Your task to perform on an android device: turn off priority inbox in the gmail app Image 0: 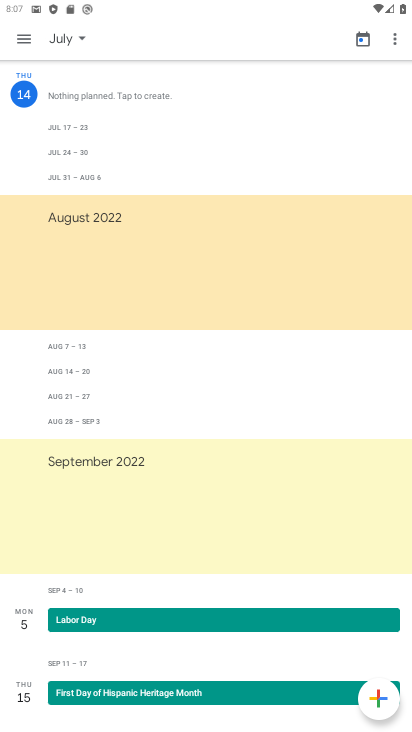
Step 0: press home button
Your task to perform on an android device: turn off priority inbox in the gmail app Image 1: 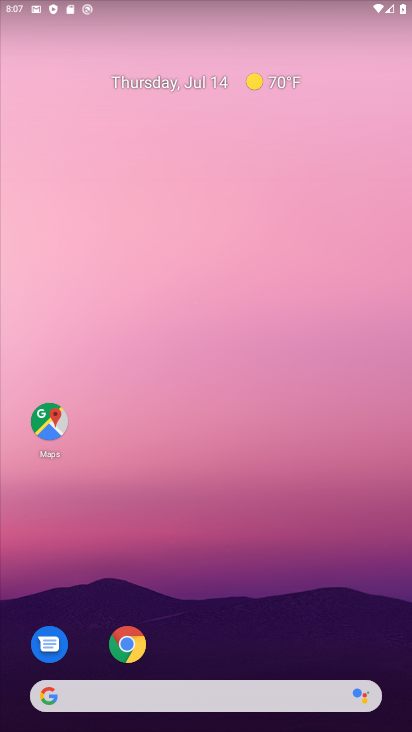
Step 1: drag from (276, 667) to (286, 46)
Your task to perform on an android device: turn off priority inbox in the gmail app Image 2: 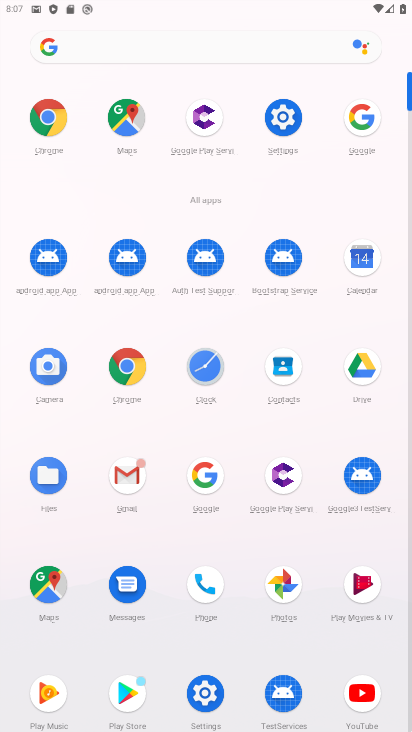
Step 2: click (137, 465)
Your task to perform on an android device: turn off priority inbox in the gmail app Image 3: 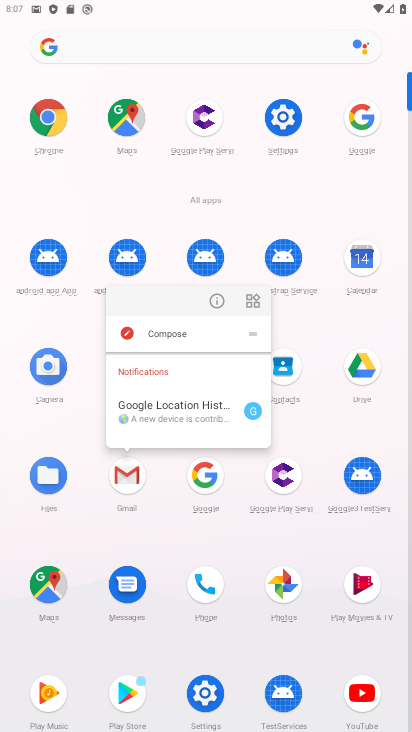
Step 3: click (106, 472)
Your task to perform on an android device: turn off priority inbox in the gmail app Image 4: 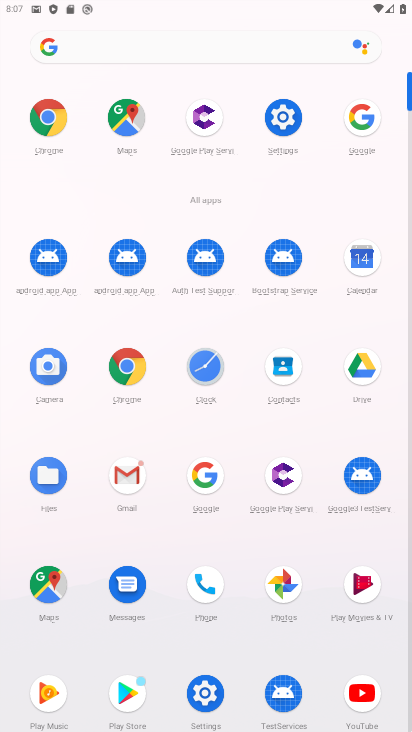
Step 4: click (116, 472)
Your task to perform on an android device: turn off priority inbox in the gmail app Image 5: 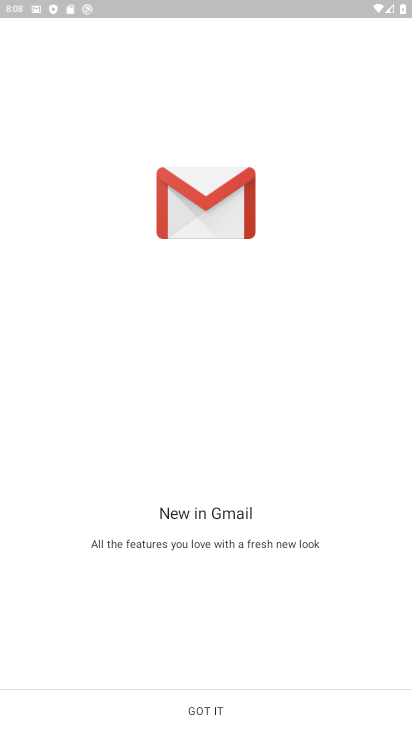
Step 5: click (208, 711)
Your task to perform on an android device: turn off priority inbox in the gmail app Image 6: 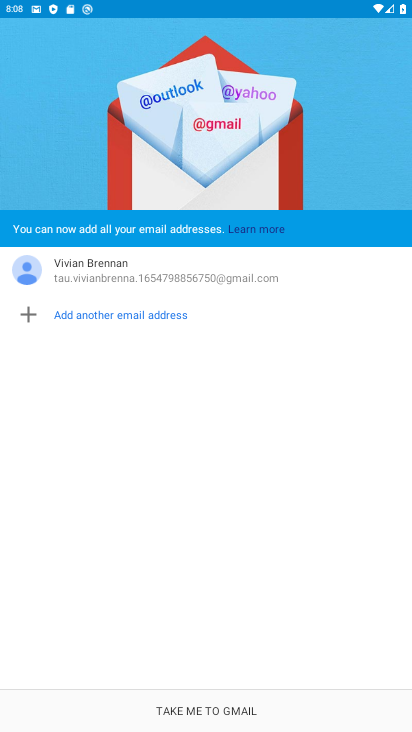
Step 6: click (191, 715)
Your task to perform on an android device: turn off priority inbox in the gmail app Image 7: 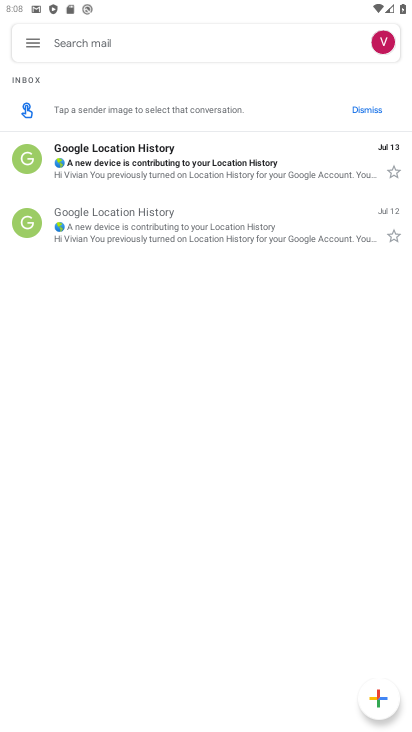
Step 7: click (25, 33)
Your task to perform on an android device: turn off priority inbox in the gmail app Image 8: 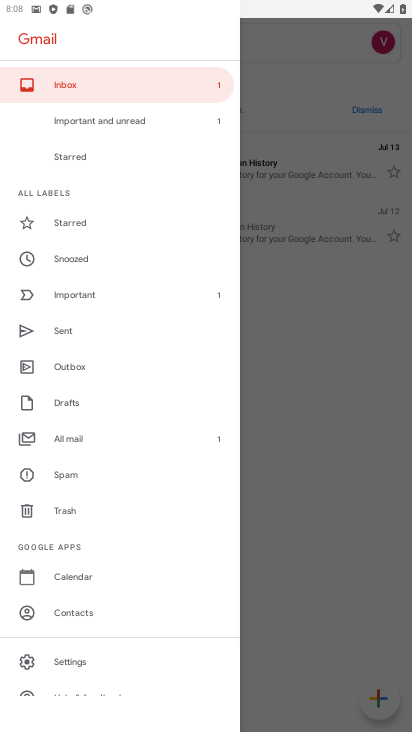
Step 8: click (88, 657)
Your task to perform on an android device: turn off priority inbox in the gmail app Image 9: 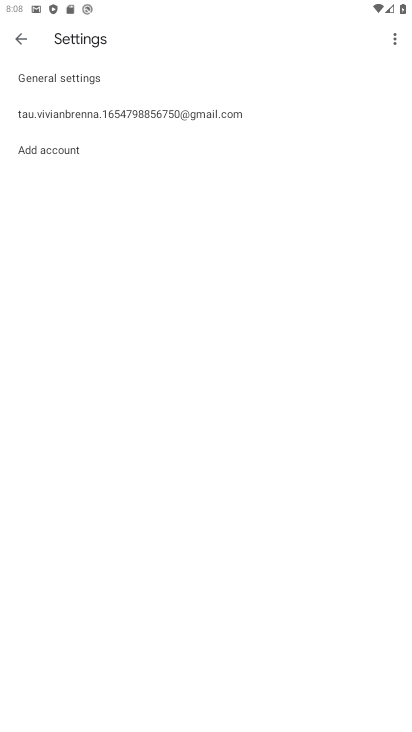
Step 9: click (84, 82)
Your task to perform on an android device: turn off priority inbox in the gmail app Image 10: 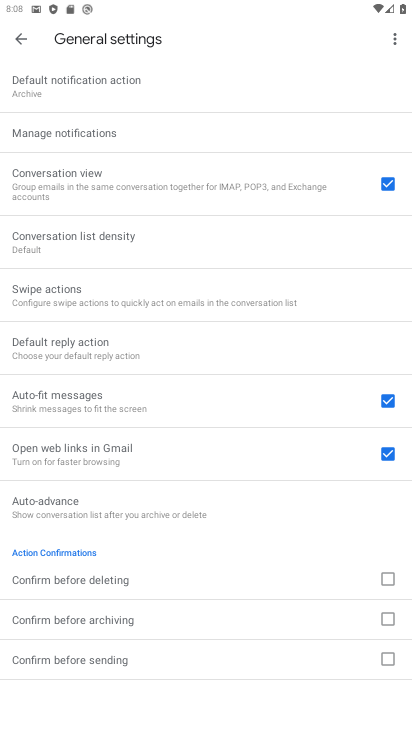
Step 10: click (5, 41)
Your task to perform on an android device: turn off priority inbox in the gmail app Image 11: 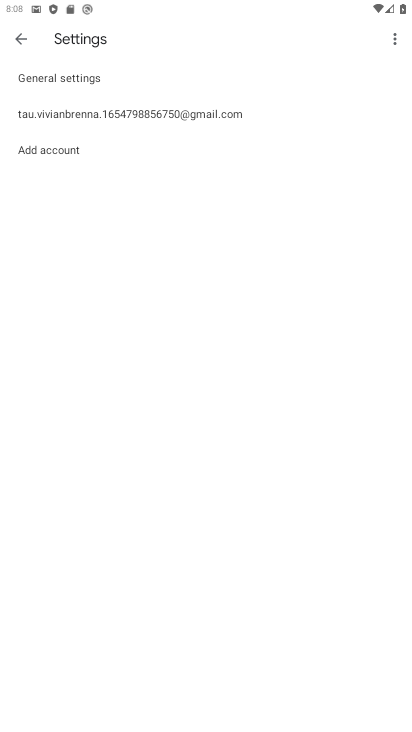
Step 11: click (79, 102)
Your task to perform on an android device: turn off priority inbox in the gmail app Image 12: 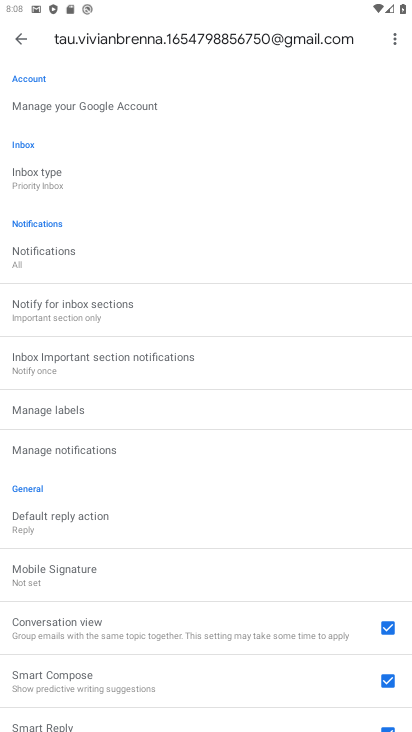
Step 12: click (96, 179)
Your task to perform on an android device: turn off priority inbox in the gmail app Image 13: 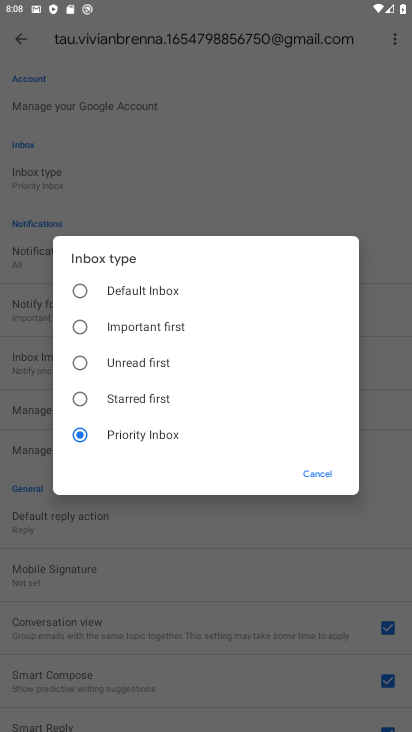
Step 13: click (132, 296)
Your task to perform on an android device: turn off priority inbox in the gmail app Image 14: 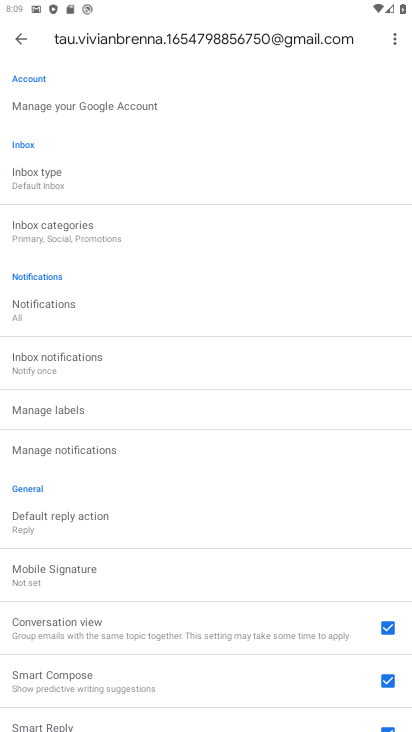
Step 14: task complete